Your task to perform on an android device: Open CNN.com Image 0: 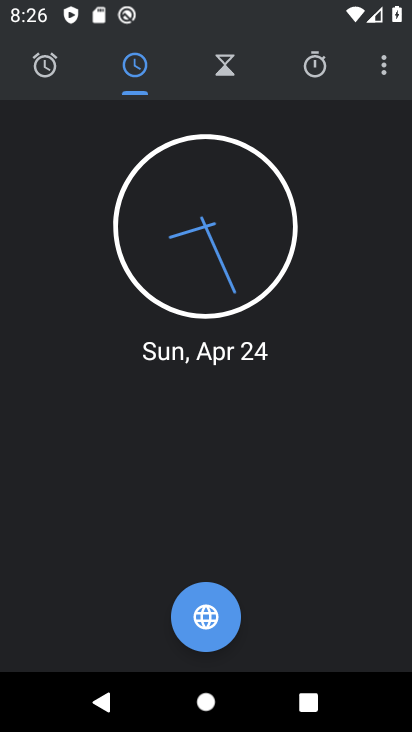
Step 0: press home button
Your task to perform on an android device: Open CNN.com Image 1: 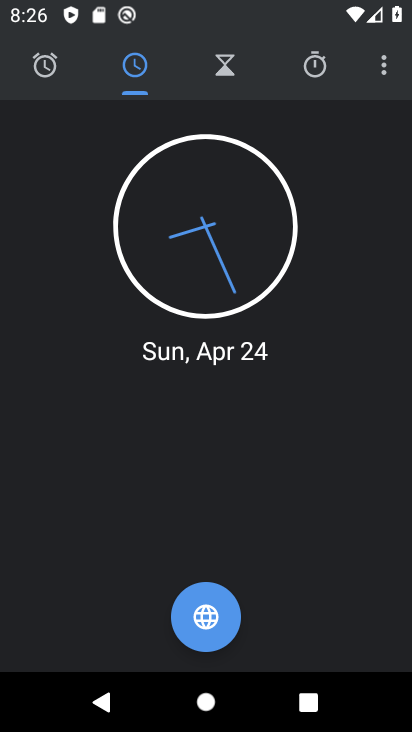
Step 1: press home button
Your task to perform on an android device: Open CNN.com Image 2: 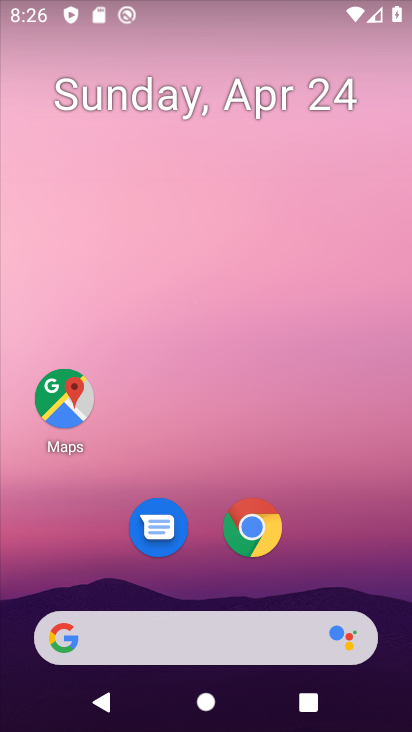
Step 2: click (259, 528)
Your task to perform on an android device: Open CNN.com Image 3: 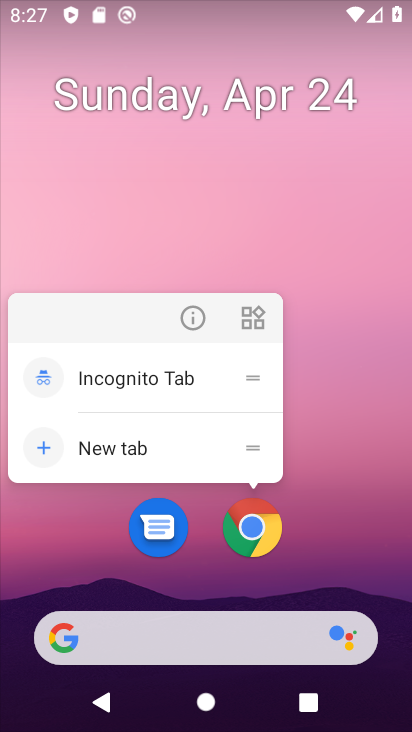
Step 3: click (259, 528)
Your task to perform on an android device: Open CNN.com Image 4: 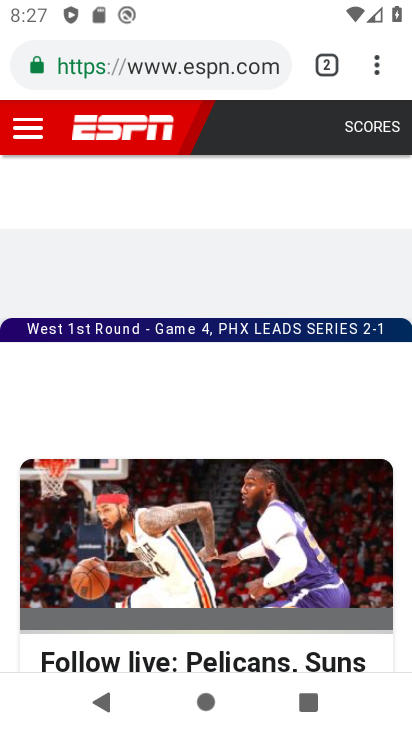
Step 4: click (326, 68)
Your task to perform on an android device: Open CNN.com Image 5: 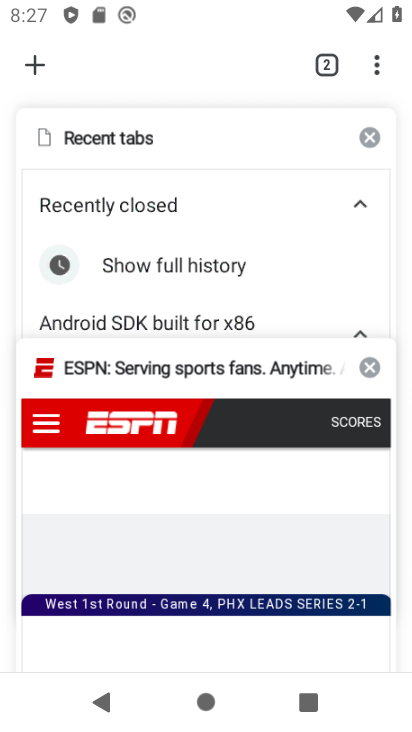
Step 5: click (37, 65)
Your task to perform on an android device: Open CNN.com Image 6: 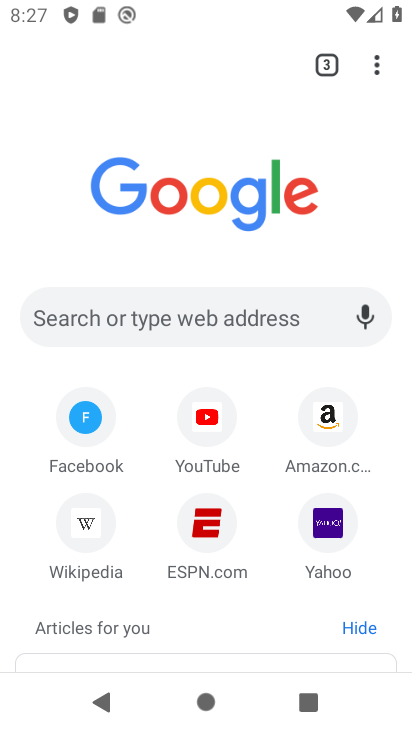
Step 6: click (155, 307)
Your task to perform on an android device: Open CNN.com Image 7: 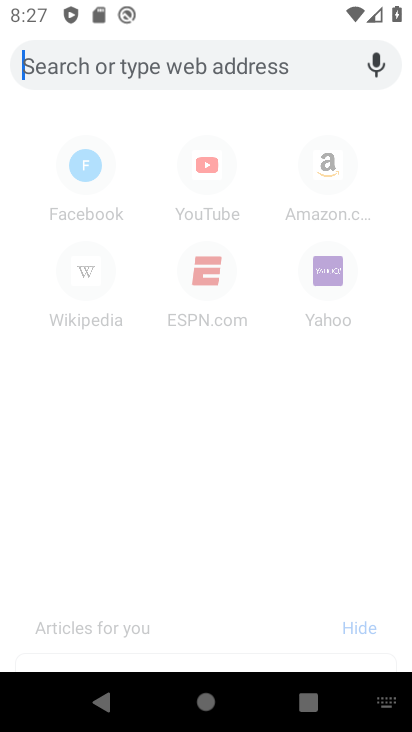
Step 7: type "CNN.com"
Your task to perform on an android device: Open CNN.com Image 8: 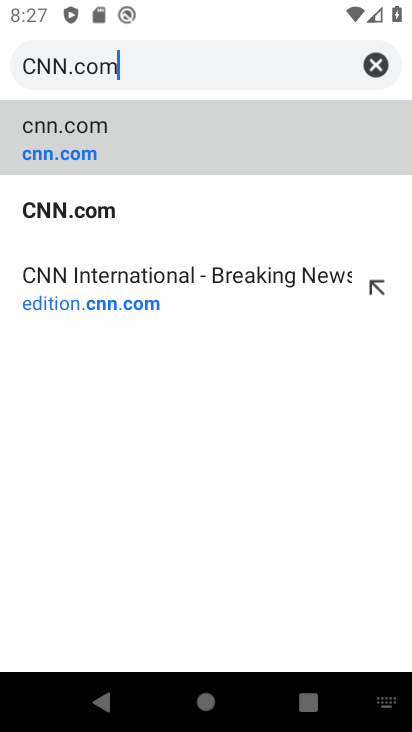
Step 8: click (74, 145)
Your task to perform on an android device: Open CNN.com Image 9: 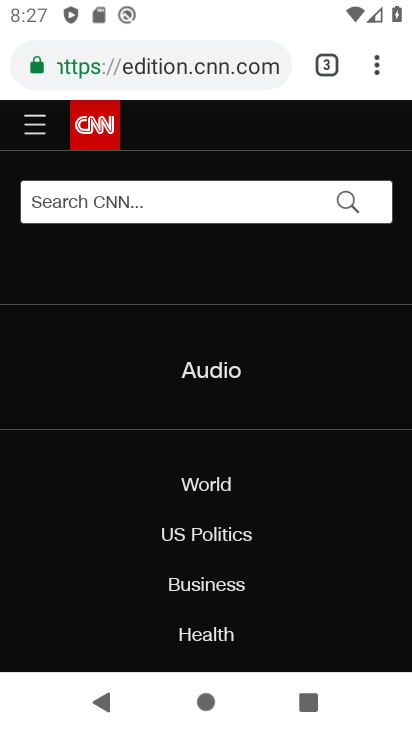
Step 9: task complete